Your task to perform on an android device: Go to accessibility settings Image 0: 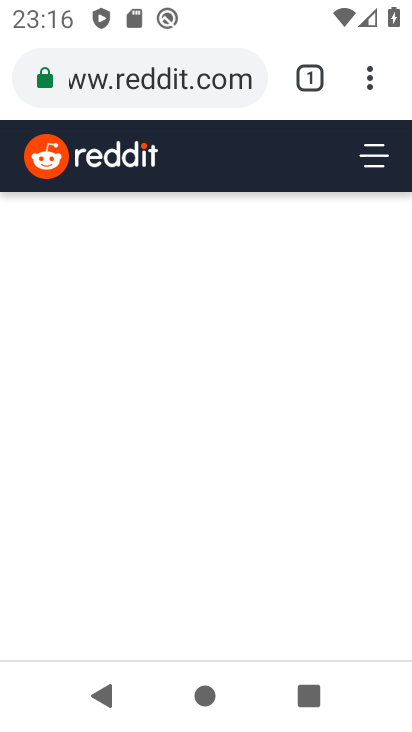
Step 0: press home button
Your task to perform on an android device: Go to accessibility settings Image 1: 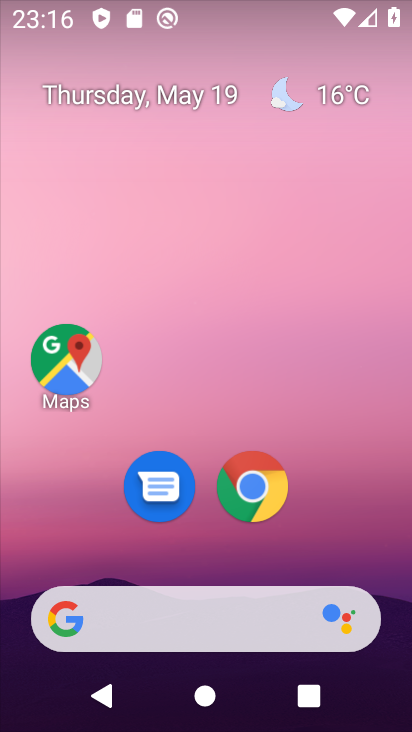
Step 1: drag from (351, 506) to (306, 0)
Your task to perform on an android device: Go to accessibility settings Image 2: 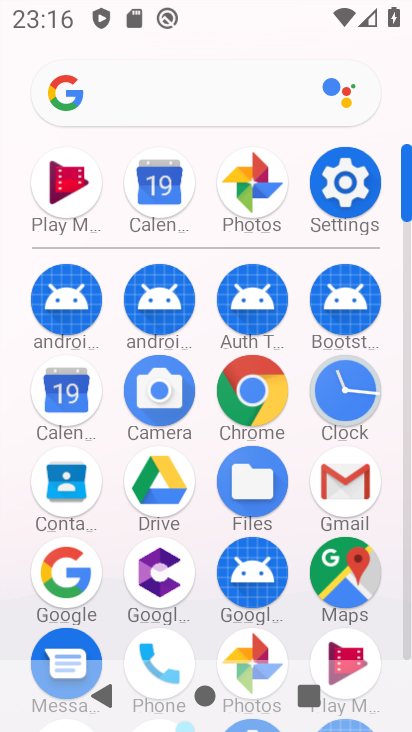
Step 2: click (344, 209)
Your task to perform on an android device: Go to accessibility settings Image 3: 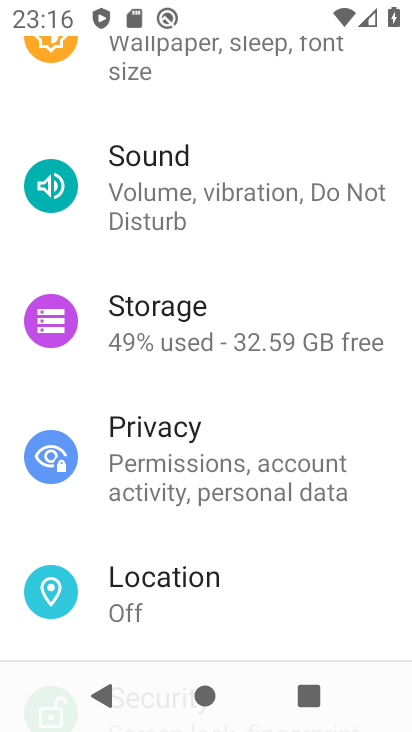
Step 3: drag from (192, 603) to (194, 272)
Your task to perform on an android device: Go to accessibility settings Image 4: 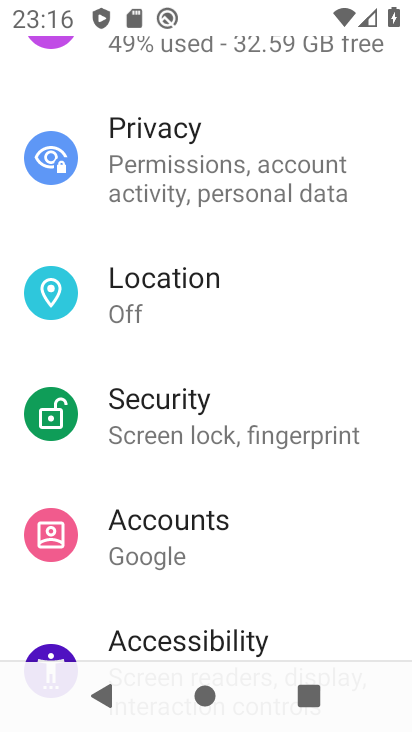
Step 4: click (168, 624)
Your task to perform on an android device: Go to accessibility settings Image 5: 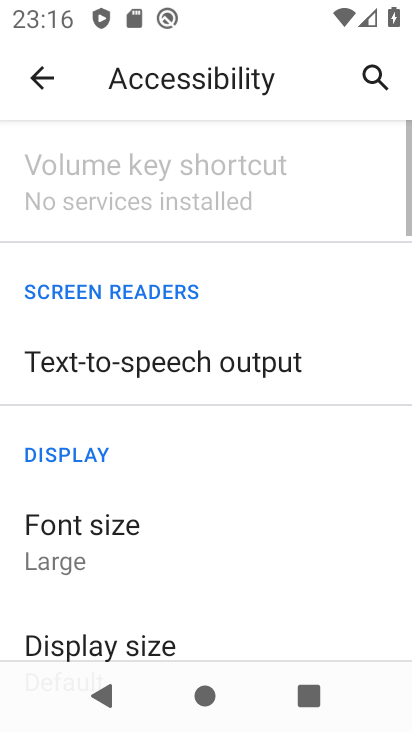
Step 5: task complete